Your task to perform on an android device: turn notification dots off Image 0: 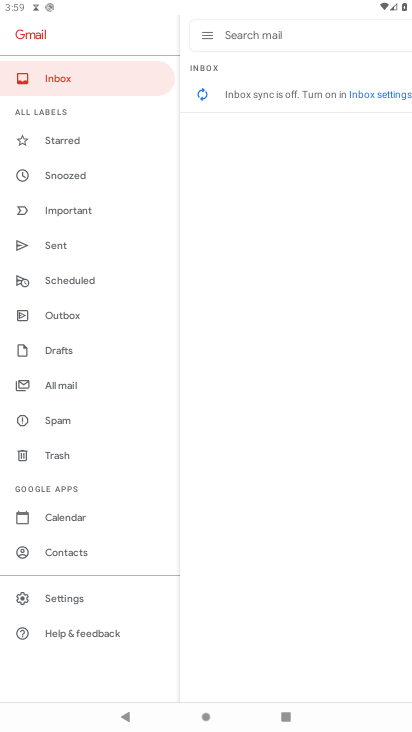
Step 0: press home button
Your task to perform on an android device: turn notification dots off Image 1: 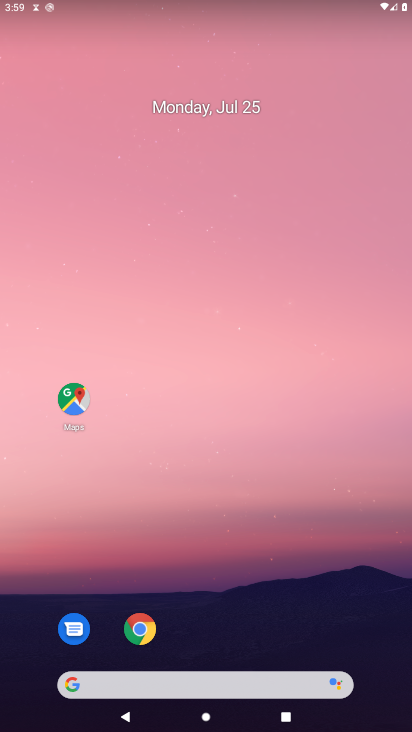
Step 1: drag from (37, 562) to (264, 75)
Your task to perform on an android device: turn notification dots off Image 2: 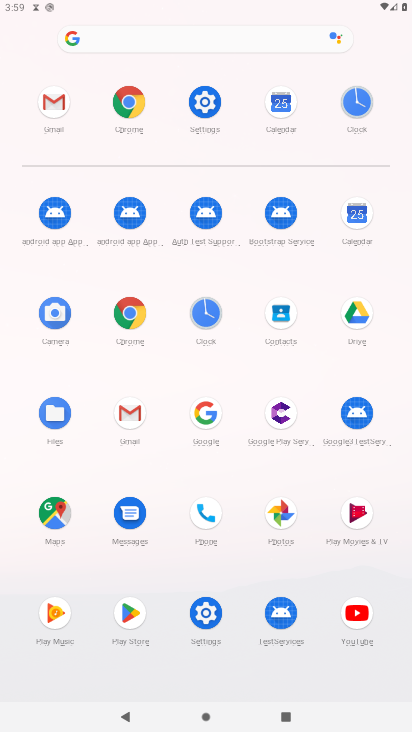
Step 2: click (217, 610)
Your task to perform on an android device: turn notification dots off Image 3: 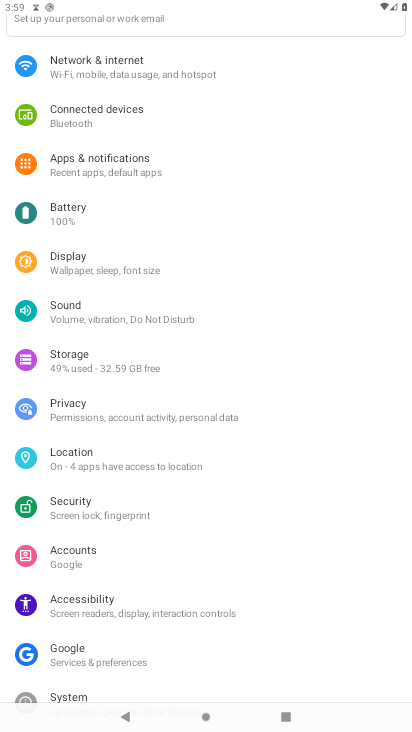
Step 3: click (119, 165)
Your task to perform on an android device: turn notification dots off Image 4: 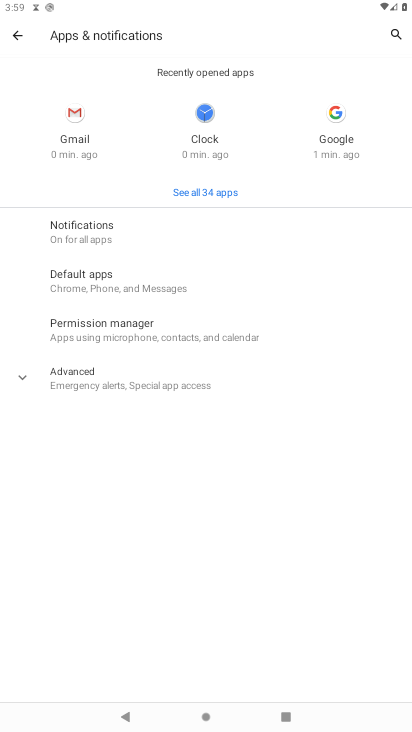
Step 4: click (81, 383)
Your task to perform on an android device: turn notification dots off Image 5: 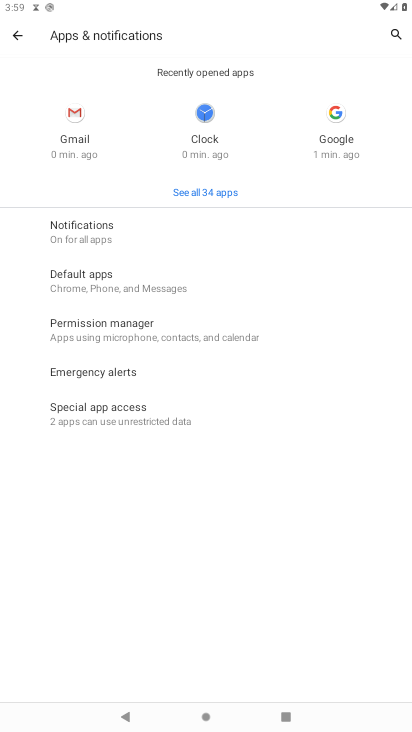
Step 5: click (88, 236)
Your task to perform on an android device: turn notification dots off Image 6: 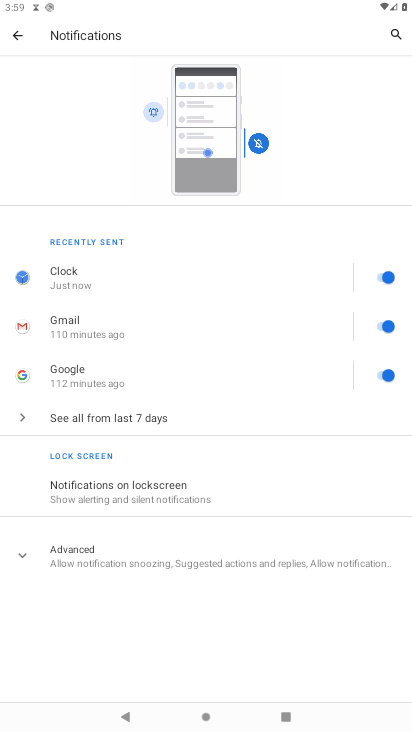
Step 6: click (133, 556)
Your task to perform on an android device: turn notification dots off Image 7: 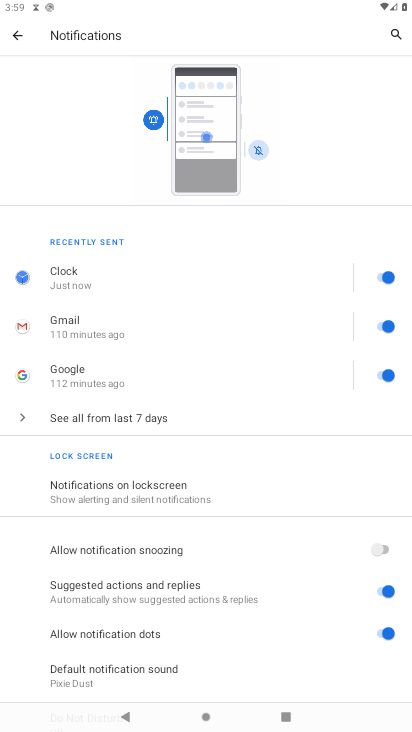
Step 7: click (390, 632)
Your task to perform on an android device: turn notification dots off Image 8: 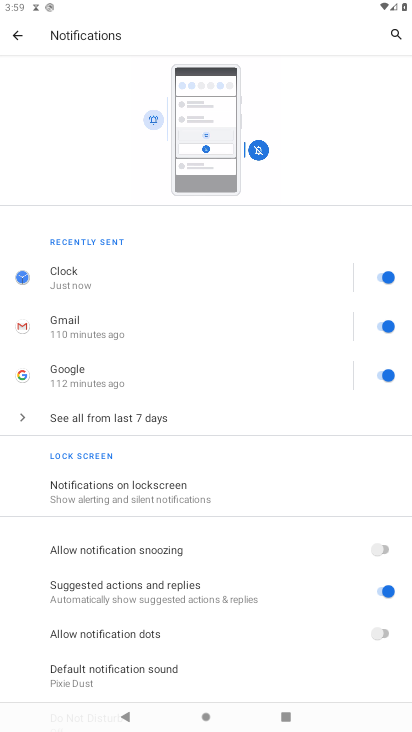
Step 8: task complete